Your task to perform on an android device: What is the recent news? Image 0: 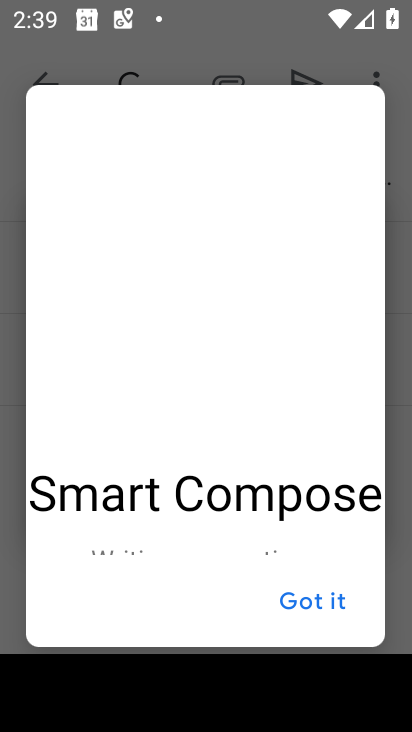
Step 0: press home button
Your task to perform on an android device: What is the recent news? Image 1: 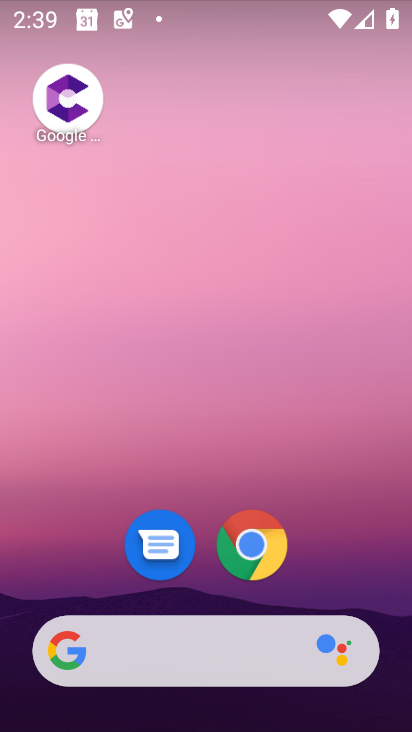
Step 1: click (214, 269)
Your task to perform on an android device: What is the recent news? Image 2: 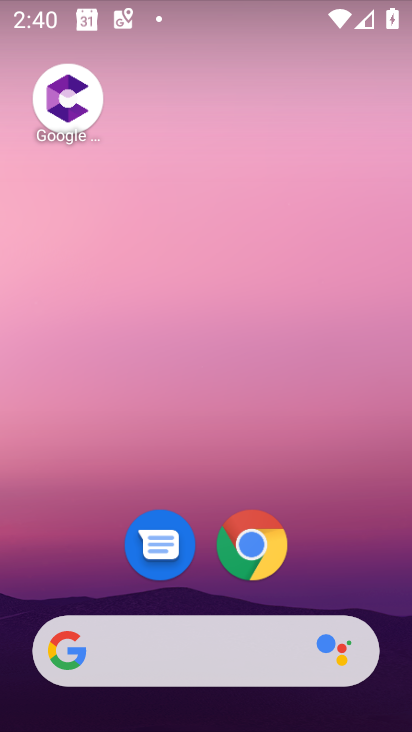
Step 2: click (226, 293)
Your task to perform on an android device: What is the recent news? Image 3: 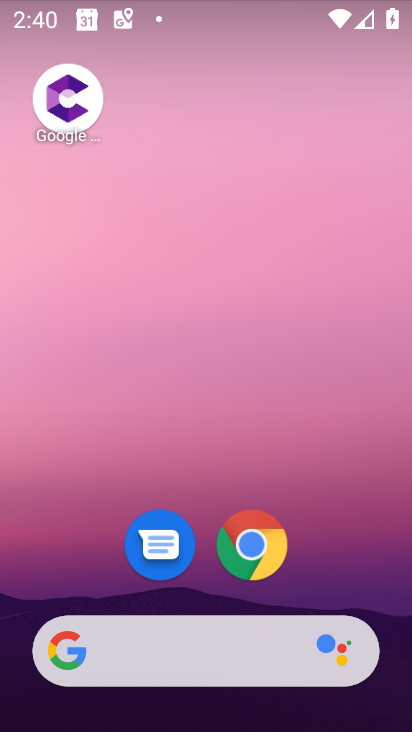
Step 3: drag from (207, 601) to (258, 108)
Your task to perform on an android device: What is the recent news? Image 4: 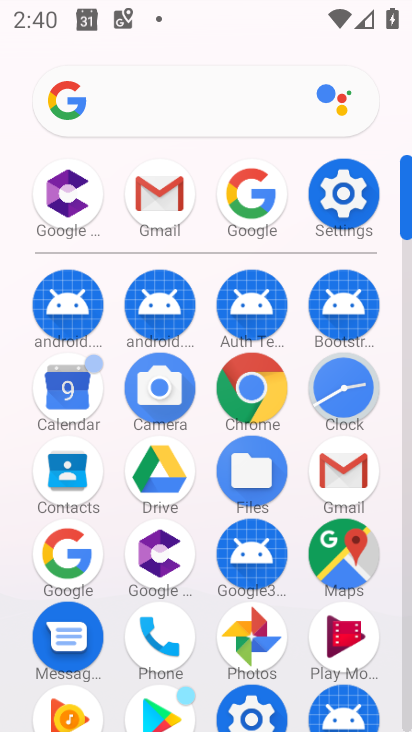
Step 4: click (52, 569)
Your task to perform on an android device: What is the recent news? Image 5: 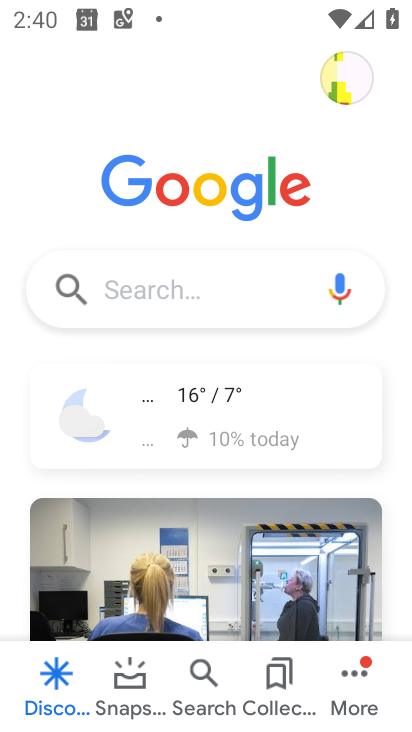
Step 5: click (202, 285)
Your task to perform on an android device: What is the recent news? Image 6: 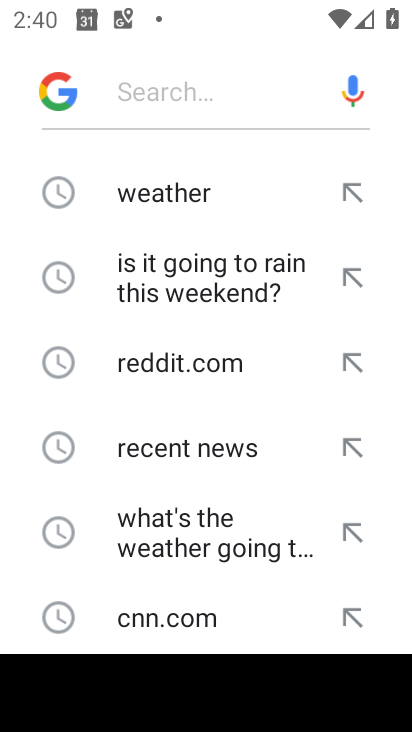
Step 6: click (186, 449)
Your task to perform on an android device: What is the recent news? Image 7: 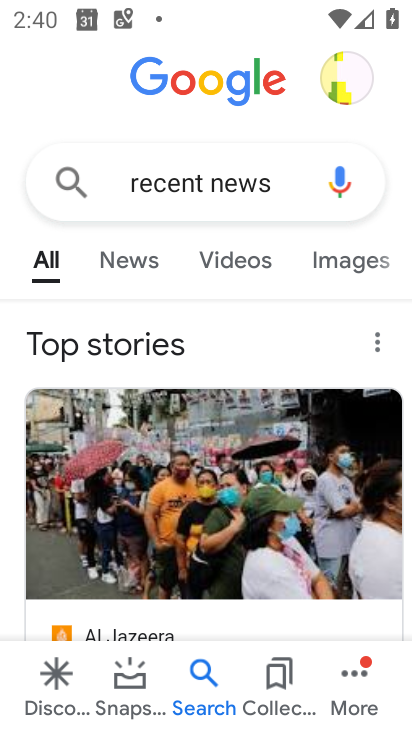
Step 7: click (115, 271)
Your task to perform on an android device: What is the recent news? Image 8: 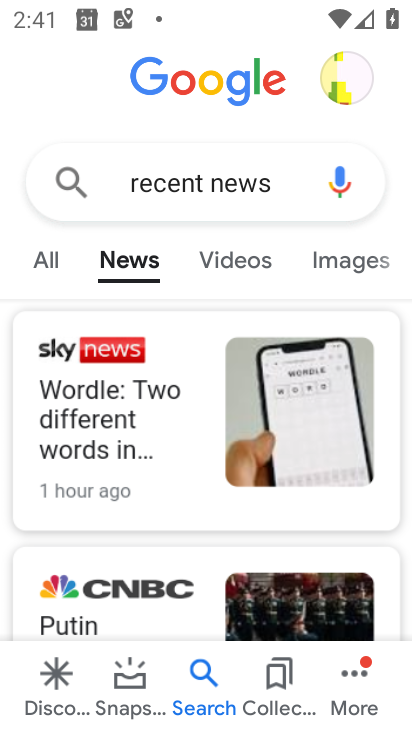
Step 8: task complete